Your task to perform on an android device: What's the weather going to be tomorrow? Image 0: 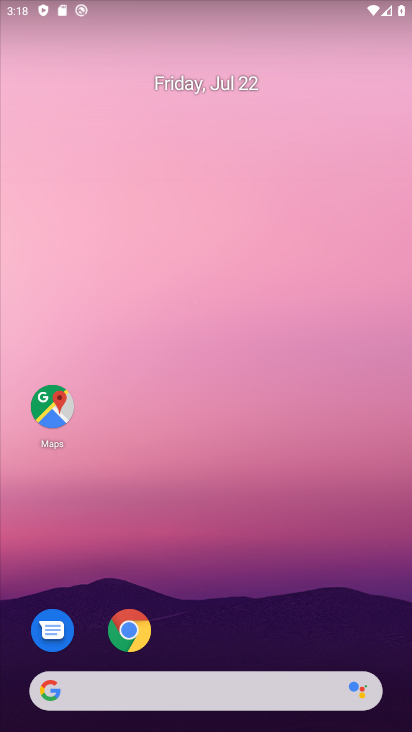
Step 0: click (217, 685)
Your task to perform on an android device: What's the weather going to be tomorrow? Image 1: 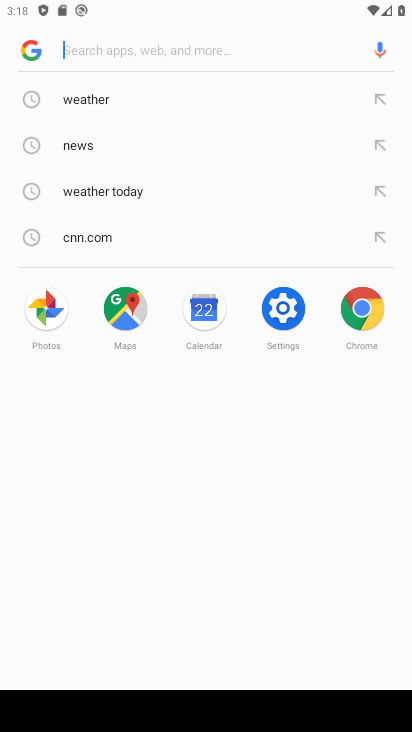
Step 1: click (101, 104)
Your task to perform on an android device: What's the weather going to be tomorrow? Image 2: 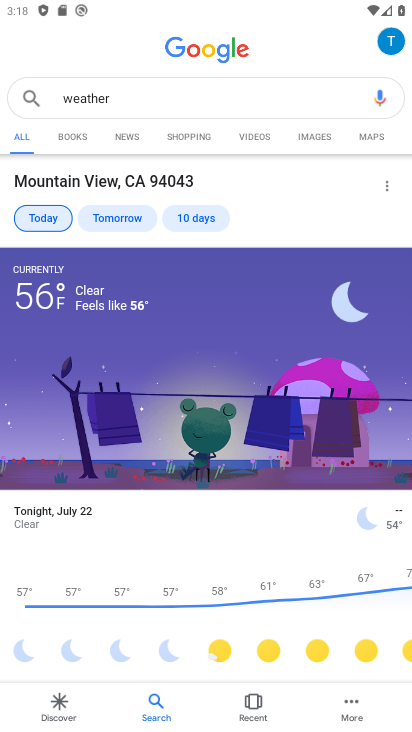
Step 2: click (131, 216)
Your task to perform on an android device: What's the weather going to be tomorrow? Image 3: 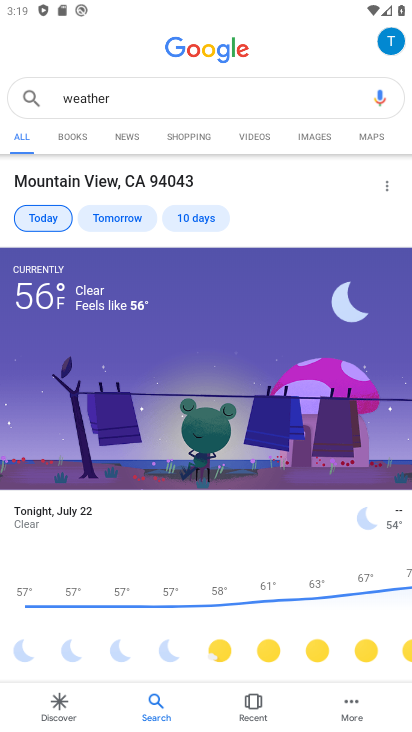
Step 3: click (133, 213)
Your task to perform on an android device: What's the weather going to be tomorrow? Image 4: 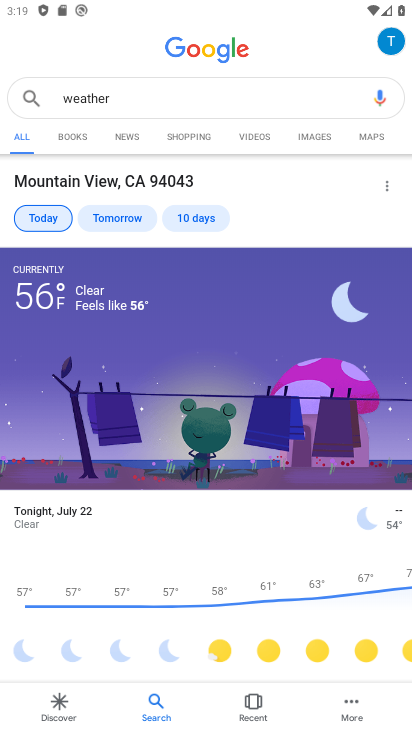
Step 4: click (133, 213)
Your task to perform on an android device: What's the weather going to be tomorrow? Image 5: 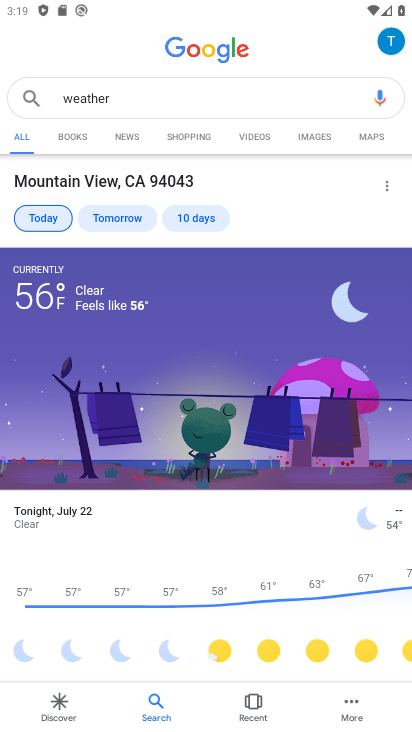
Step 5: click (133, 212)
Your task to perform on an android device: What's the weather going to be tomorrow? Image 6: 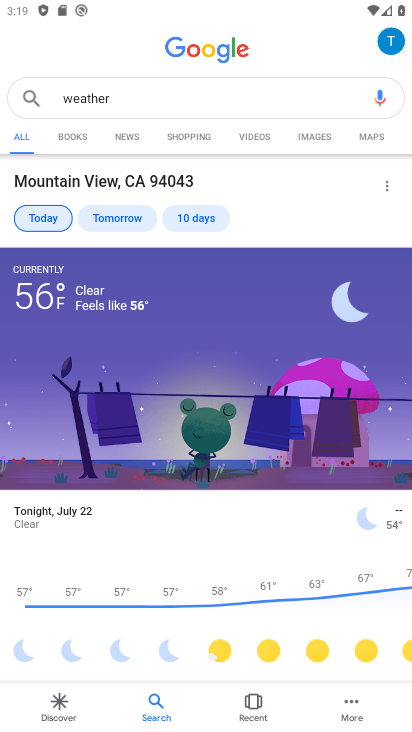
Step 6: click (133, 212)
Your task to perform on an android device: What's the weather going to be tomorrow? Image 7: 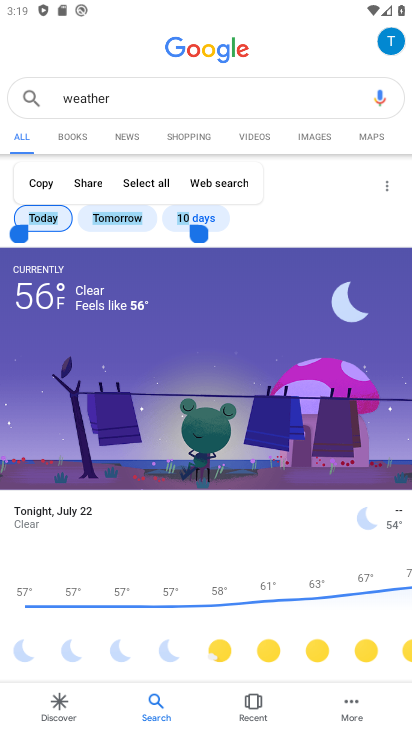
Step 7: click (109, 225)
Your task to perform on an android device: What's the weather going to be tomorrow? Image 8: 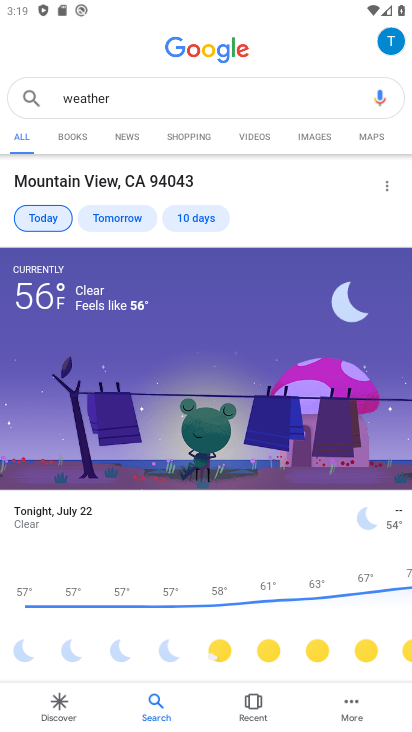
Step 8: click (120, 223)
Your task to perform on an android device: What's the weather going to be tomorrow? Image 9: 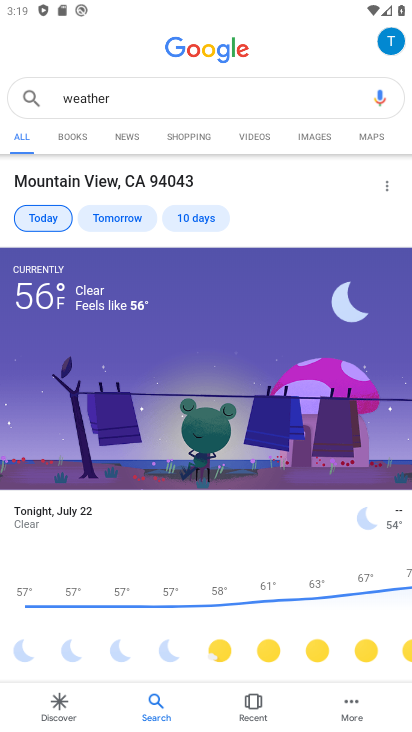
Step 9: click (124, 212)
Your task to perform on an android device: What's the weather going to be tomorrow? Image 10: 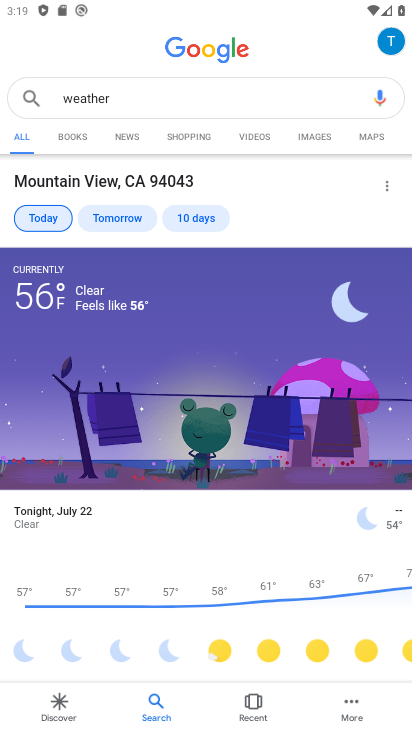
Step 10: click (126, 213)
Your task to perform on an android device: What's the weather going to be tomorrow? Image 11: 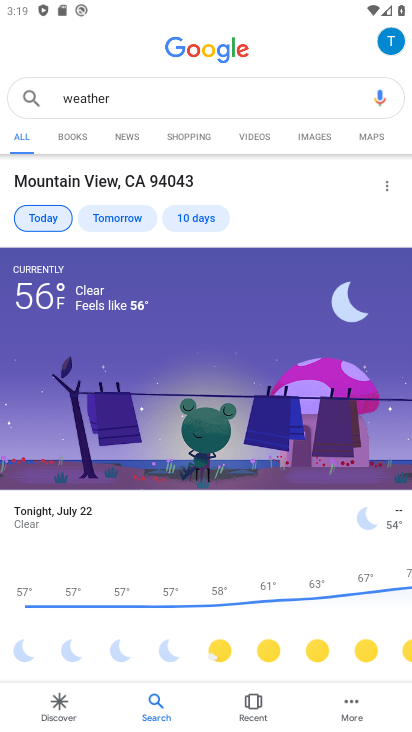
Step 11: task complete